Your task to perform on an android device: find which apps use the phone's location Image 0: 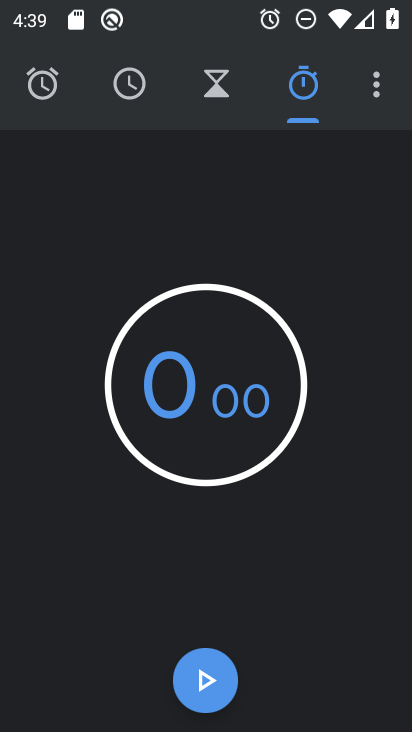
Step 0: press back button
Your task to perform on an android device: find which apps use the phone's location Image 1: 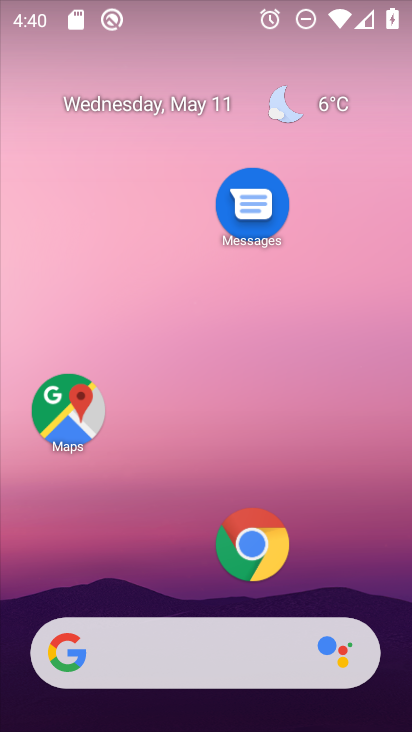
Step 1: drag from (106, 543) to (227, 209)
Your task to perform on an android device: find which apps use the phone's location Image 2: 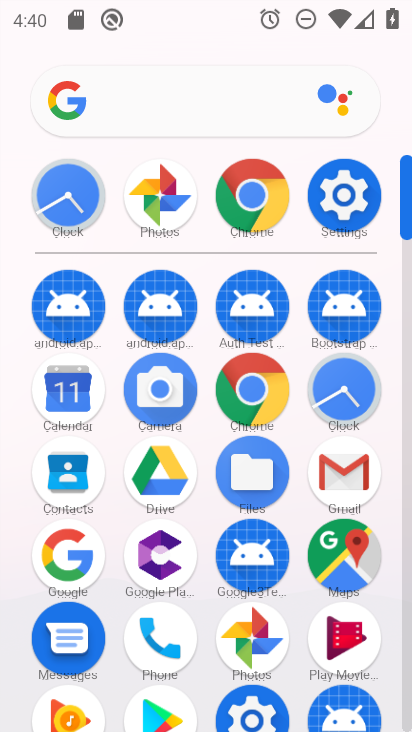
Step 2: click (339, 186)
Your task to perform on an android device: find which apps use the phone's location Image 3: 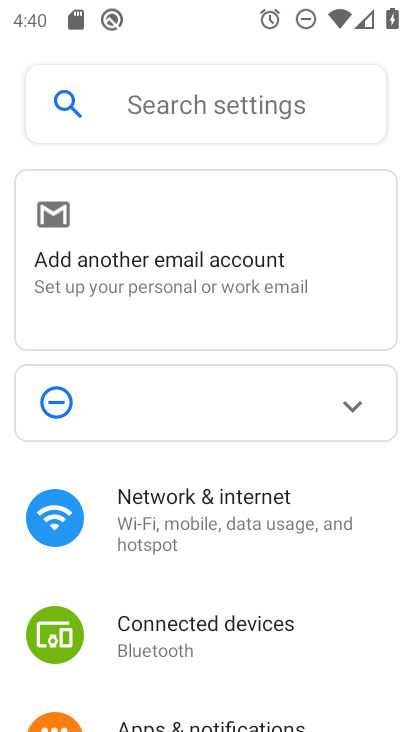
Step 3: drag from (164, 620) to (365, 129)
Your task to perform on an android device: find which apps use the phone's location Image 4: 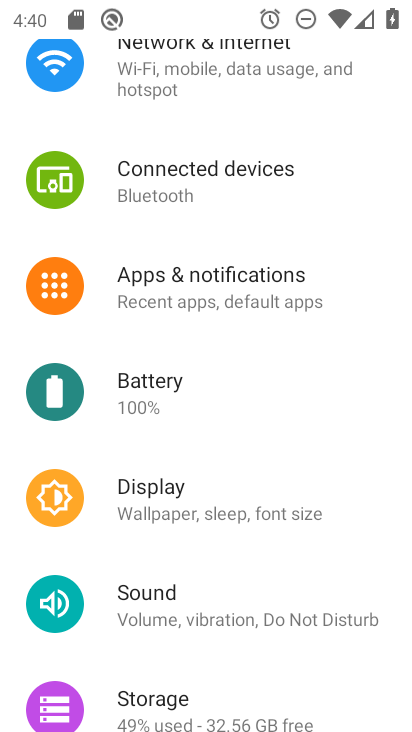
Step 4: drag from (196, 639) to (316, 158)
Your task to perform on an android device: find which apps use the phone's location Image 5: 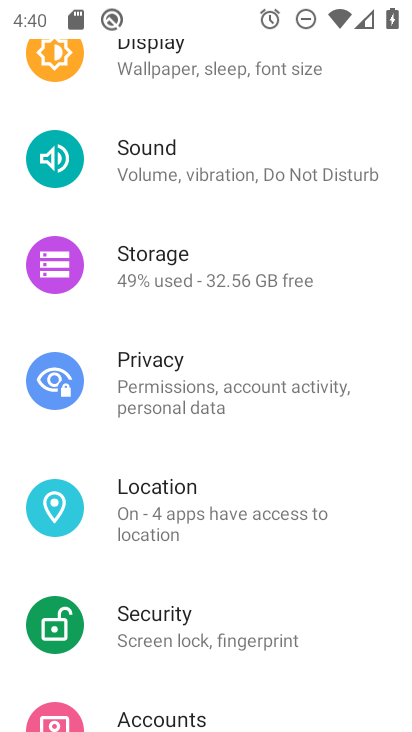
Step 5: click (194, 509)
Your task to perform on an android device: find which apps use the phone's location Image 6: 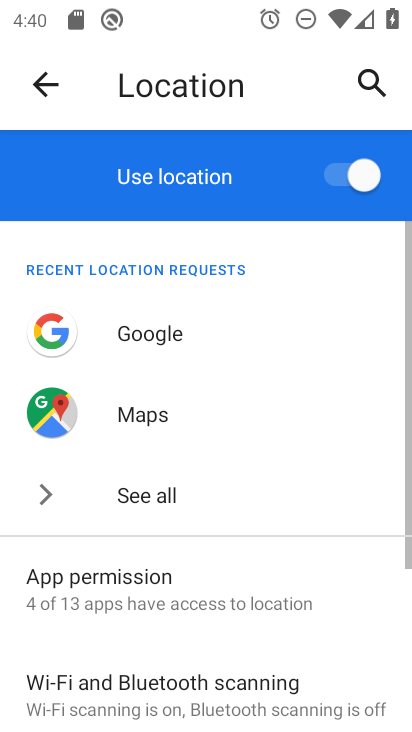
Step 6: click (73, 579)
Your task to perform on an android device: find which apps use the phone's location Image 7: 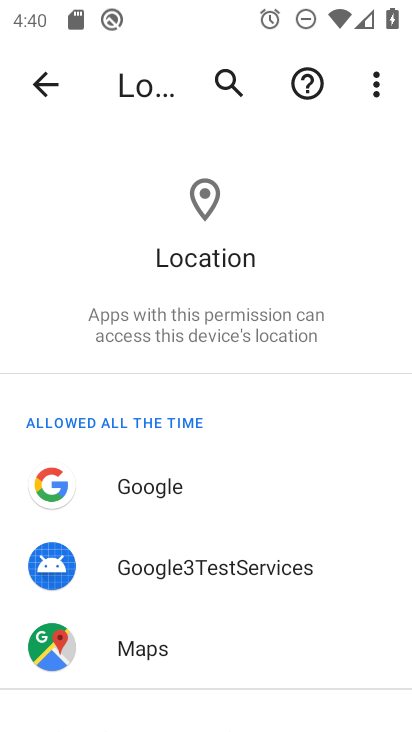
Step 7: task complete